Your task to perform on an android device: toggle javascript in the chrome app Image 0: 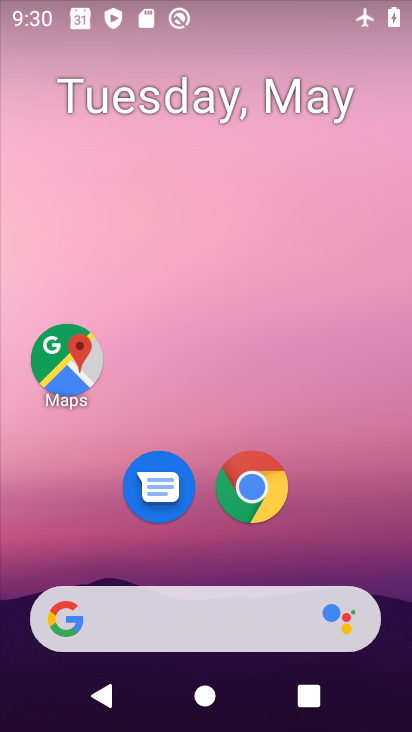
Step 0: drag from (207, 550) to (274, 215)
Your task to perform on an android device: toggle javascript in the chrome app Image 1: 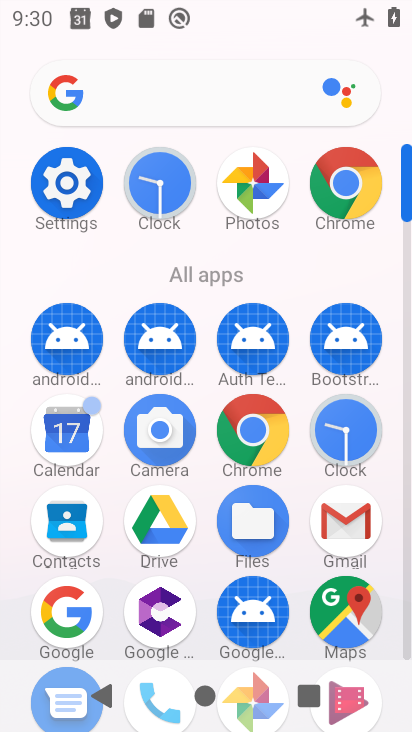
Step 1: click (349, 180)
Your task to perform on an android device: toggle javascript in the chrome app Image 2: 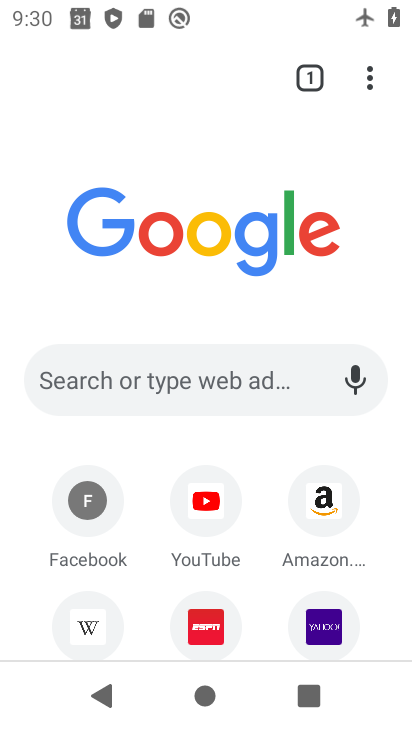
Step 2: drag from (270, 626) to (274, 315)
Your task to perform on an android device: toggle javascript in the chrome app Image 3: 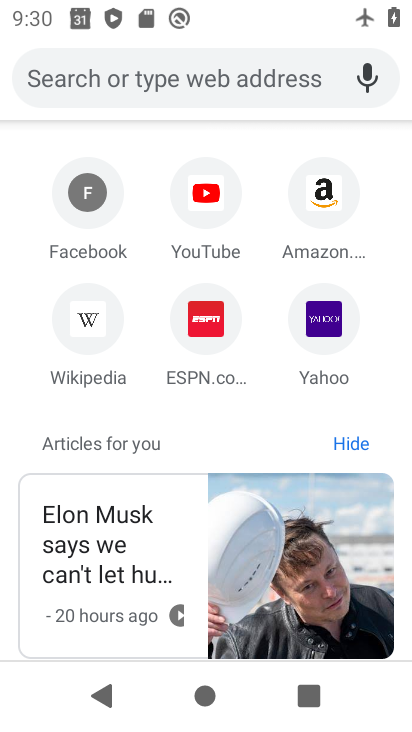
Step 3: drag from (254, 226) to (305, 548)
Your task to perform on an android device: toggle javascript in the chrome app Image 4: 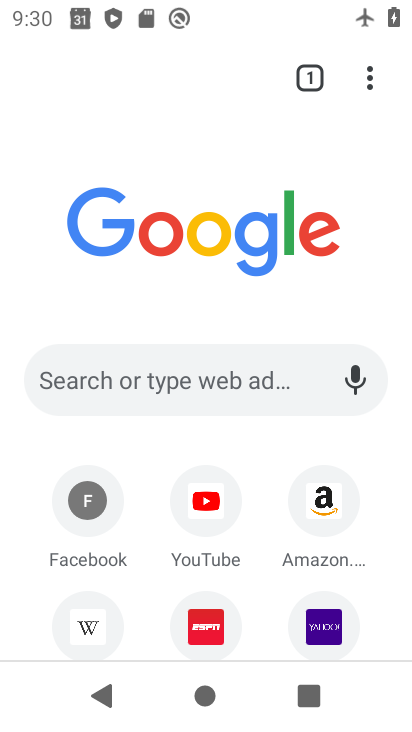
Step 4: click (362, 66)
Your task to perform on an android device: toggle javascript in the chrome app Image 5: 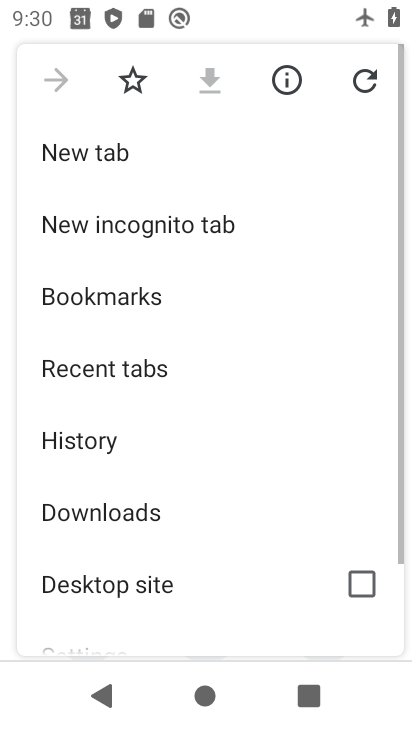
Step 5: drag from (211, 561) to (233, 108)
Your task to perform on an android device: toggle javascript in the chrome app Image 6: 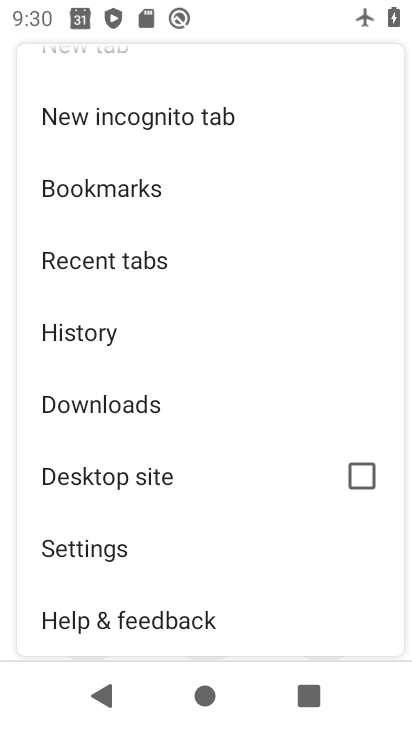
Step 6: click (152, 545)
Your task to perform on an android device: toggle javascript in the chrome app Image 7: 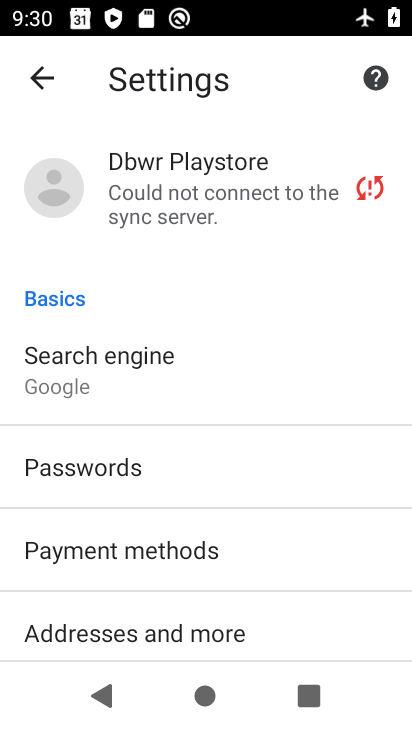
Step 7: drag from (194, 587) to (219, 164)
Your task to perform on an android device: toggle javascript in the chrome app Image 8: 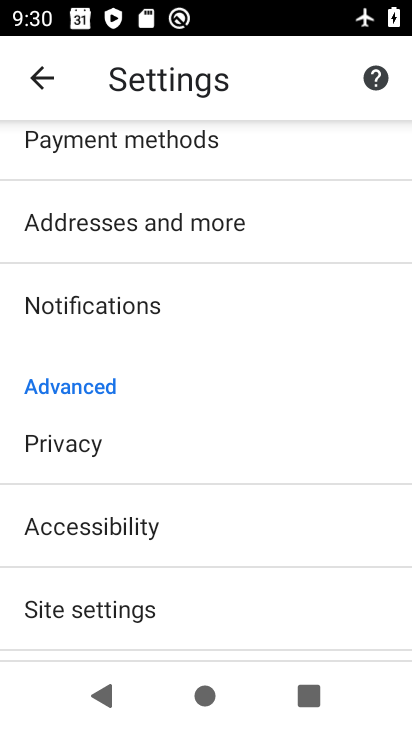
Step 8: click (142, 587)
Your task to perform on an android device: toggle javascript in the chrome app Image 9: 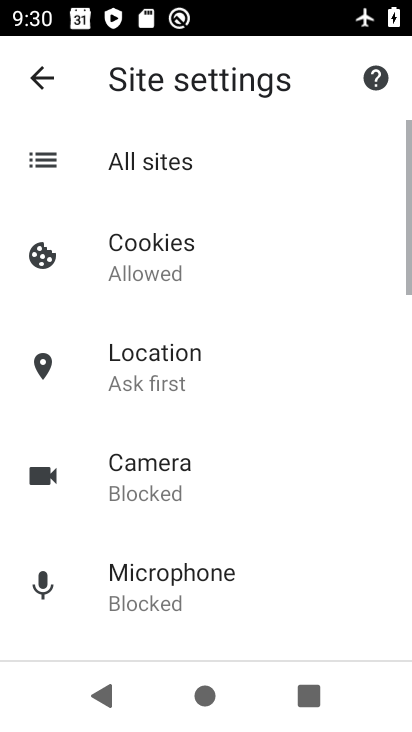
Step 9: drag from (218, 486) to (318, 162)
Your task to perform on an android device: toggle javascript in the chrome app Image 10: 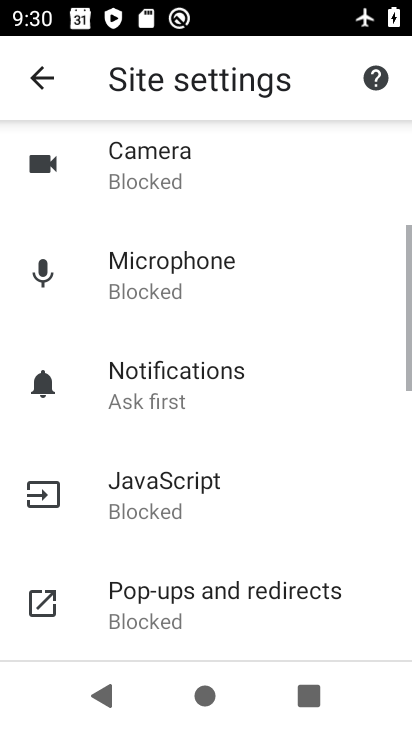
Step 10: click (159, 512)
Your task to perform on an android device: toggle javascript in the chrome app Image 11: 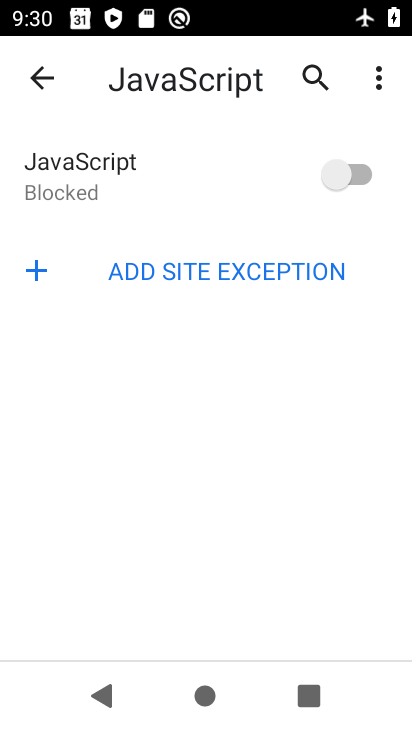
Step 11: click (350, 160)
Your task to perform on an android device: toggle javascript in the chrome app Image 12: 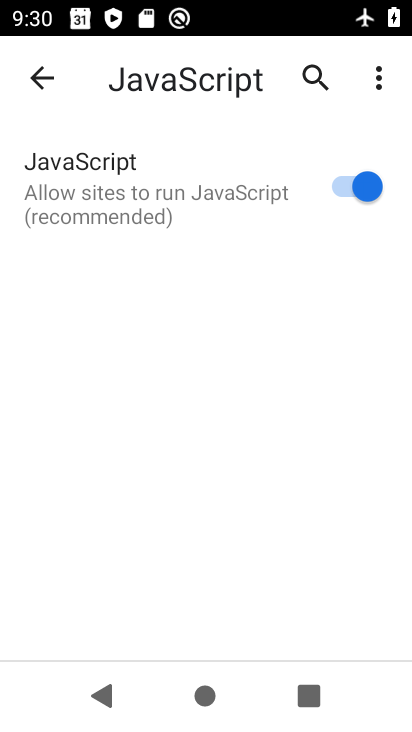
Step 12: task complete